Your task to perform on an android device: empty trash in the gmail app Image 0: 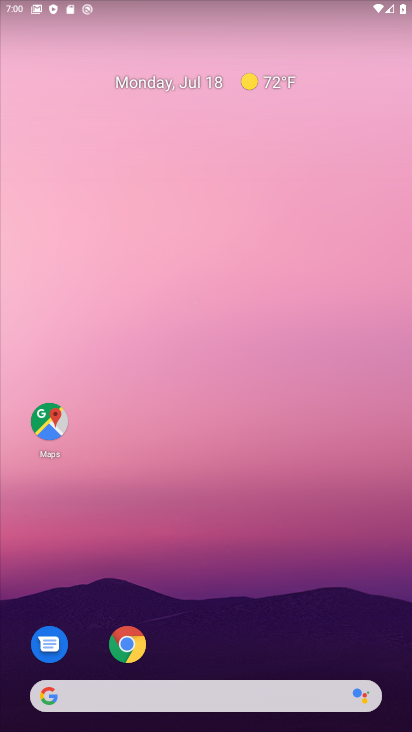
Step 0: drag from (384, 625) to (243, 57)
Your task to perform on an android device: empty trash in the gmail app Image 1: 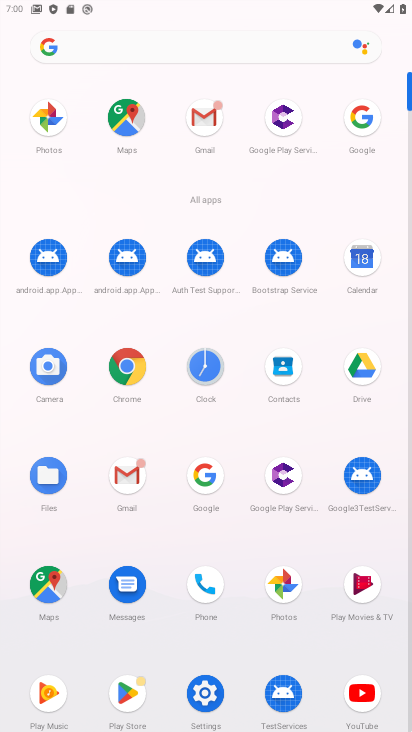
Step 1: click (131, 465)
Your task to perform on an android device: empty trash in the gmail app Image 2: 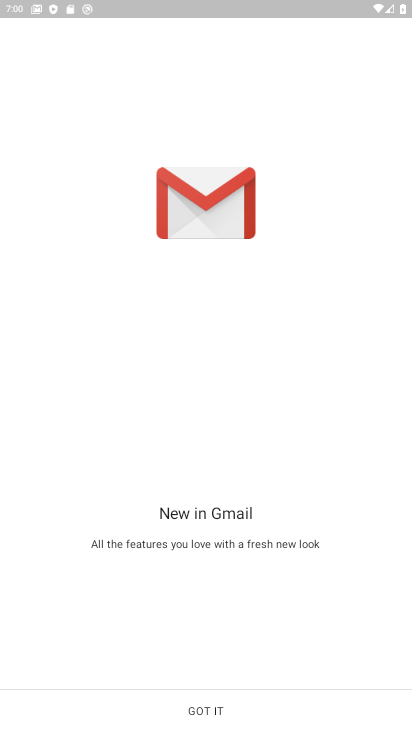
Step 2: click (197, 707)
Your task to perform on an android device: empty trash in the gmail app Image 3: 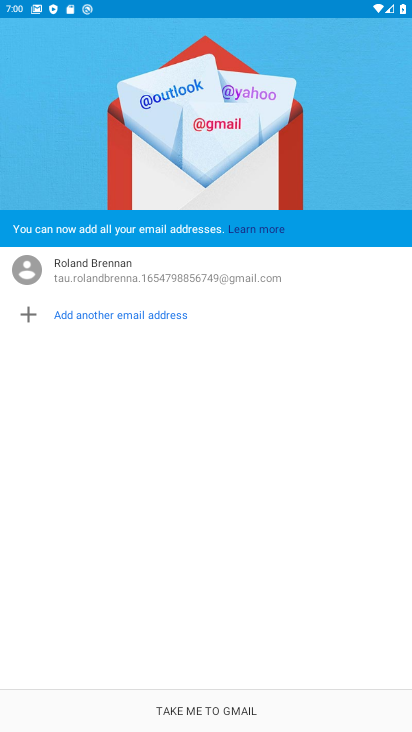
Step 3: click (197, 707)
Your task to perform on an android device: empty trash in the gmail app Image 4: 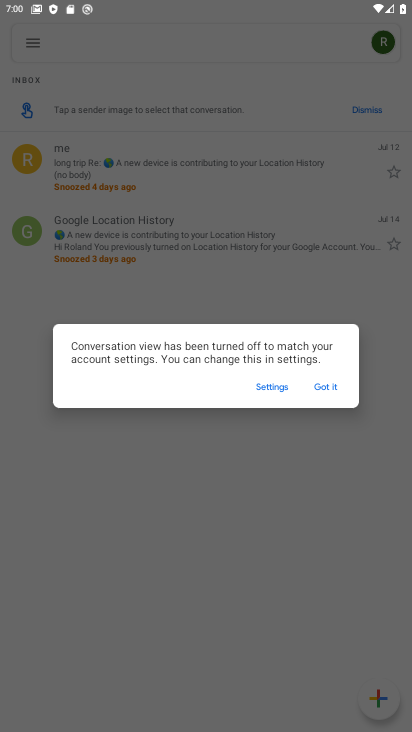
Step 4: click (313, 385)
Your task to perform on an android device: empty trash in the gmail app Image 5: 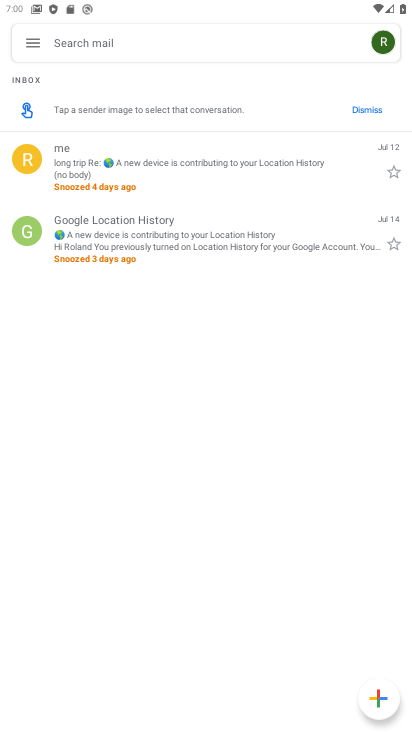
Step 5: click (26, 50)
Your task to perform on an android device: empty trash in the gmail app Image 6: 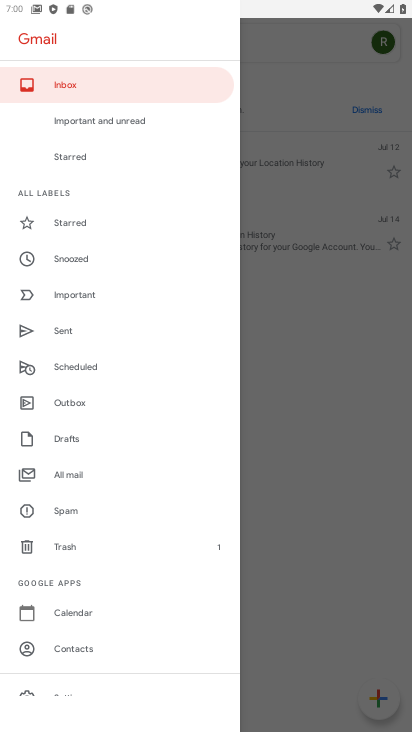
Step 6: click (61, 549)
Your task to perform on an android device: empty trash in the gmail app Image 7: 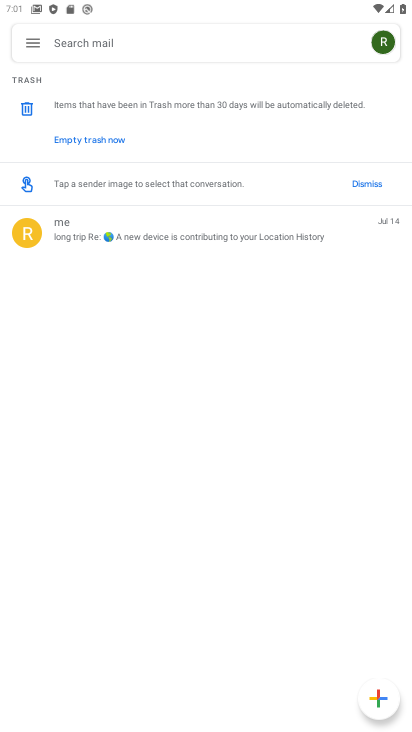
Step 7: click (78, 142)
Your task to perform on an android device: empty trash in the gmail app Image 8: 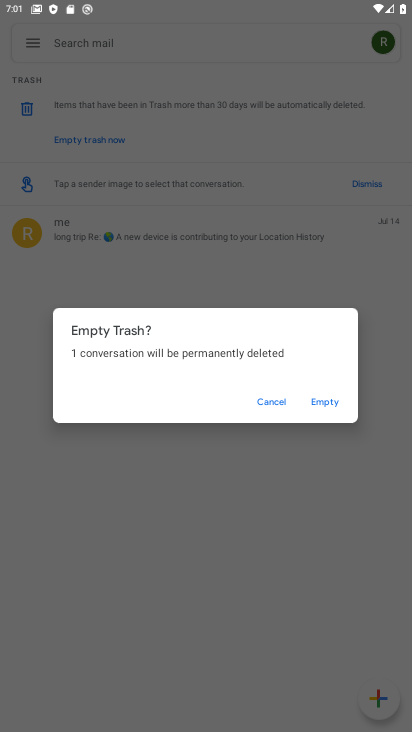
Step 8: click (320, 398)
Your task to perform on an android device: empty trash in the gmail app Image 9: 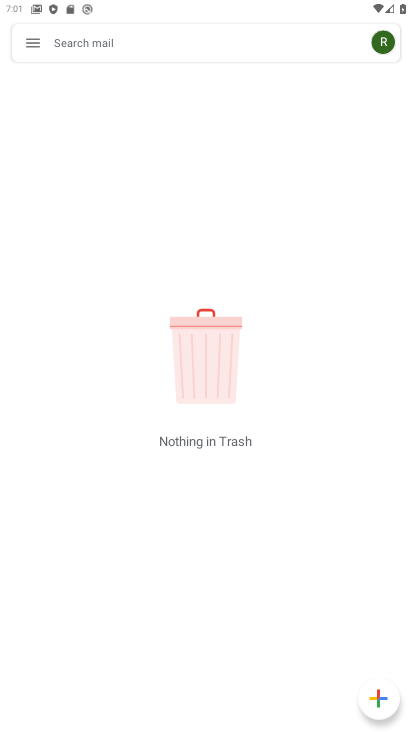
Step 9: task complete